Your task to perform on an android device: Open notification settings Image 0: 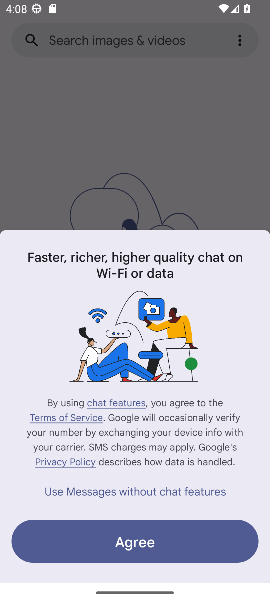
Step 0: press home button
Your task to perform on an android device: Open notification settings Image 1: 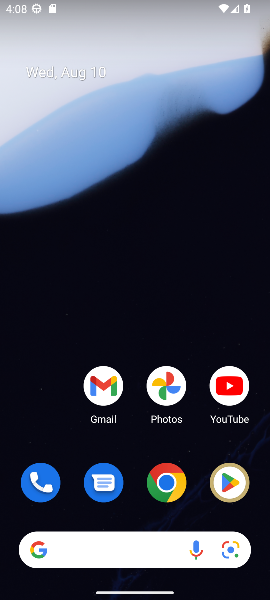
Step 1: drag from (107, 327) to (121, 3)
Your task to perform on an android device: Open notification settings Image 2: 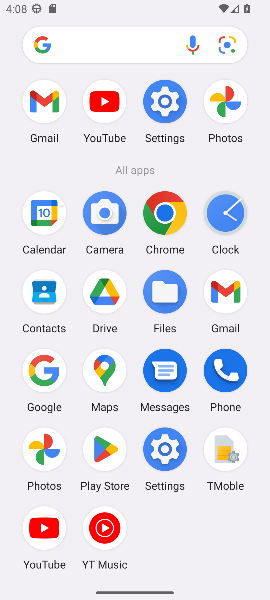
Step 2: click (168, 452)
Your task to perform on an android device: Open notification settings Image 3: 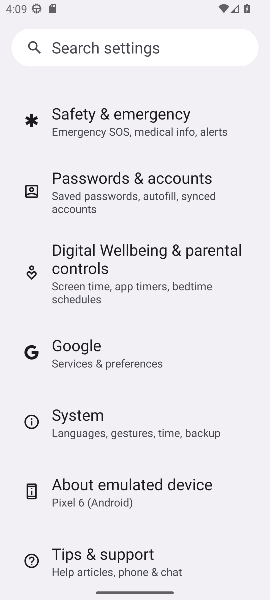
Step 3: drag from (156, 154) to (170, 534)
Your task to perform on an android device: Open notification settings Image 4: 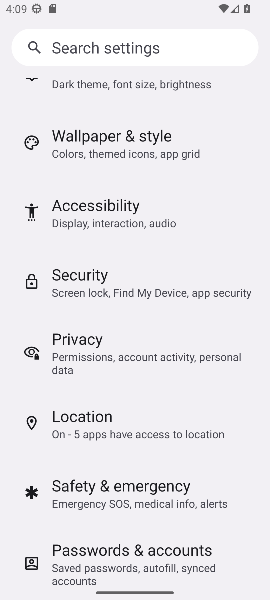
Step 4: drag from (150, 123) to (178, 470)
Your task to perform on an android device: Open notification settings Image 5: 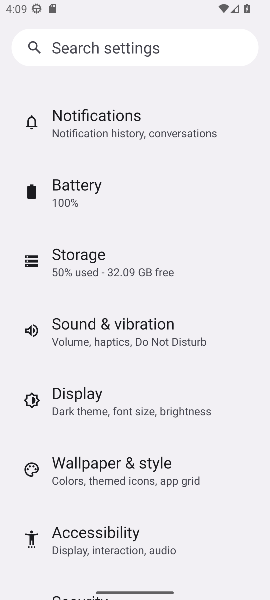
Step 5: drag from (156, 186) to (150, 495)
Your task to perform on an android device: Open notification settings Image 6: 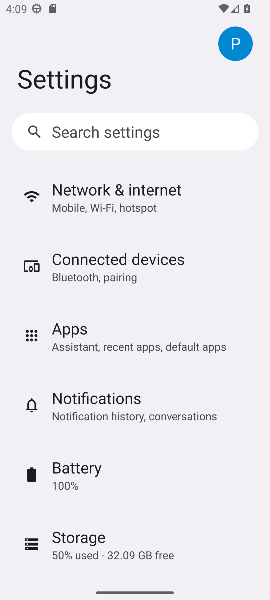
Step 6: click (143, 414)
Your task to perform on an android device: Open notification settings Image 7: 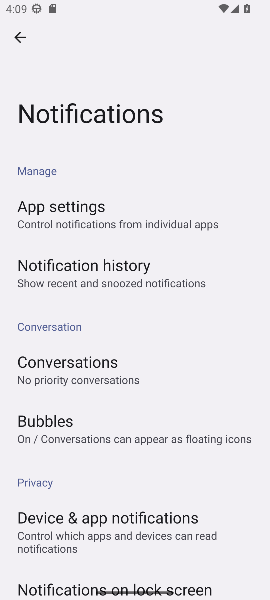
Step 7: task complete